Your task to perform on an android device: Show me productivity apps on the Play Store Image 0: 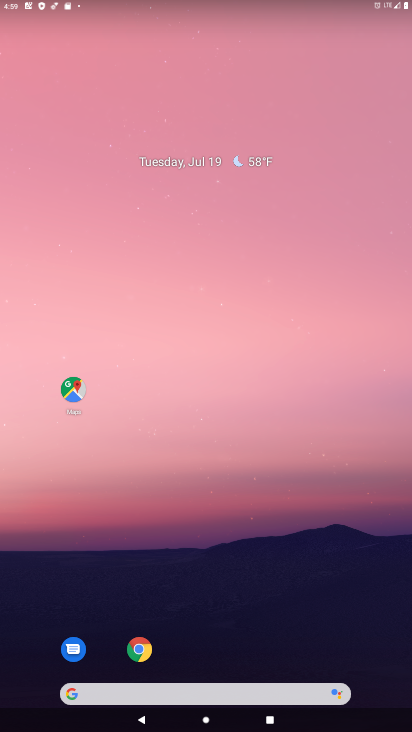
Step 0: press home button
Your task to perform on an android device: Show me productivity apps on the Play Store Image 1: 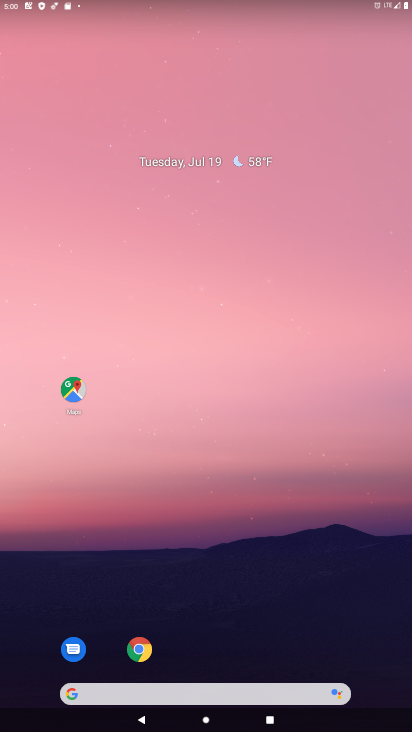
Step 1: drag from (170, 651) to (221, 125)
Your task to perform on an android device: Show me productivity apps on the Play Store Image 2: 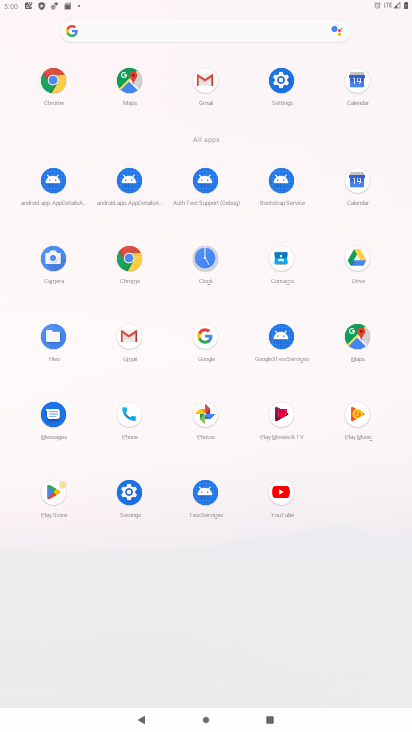
Step 2: click (281, 82)
Your task to perform on an android device: Show me productivity apps on the Play Store Image 3: 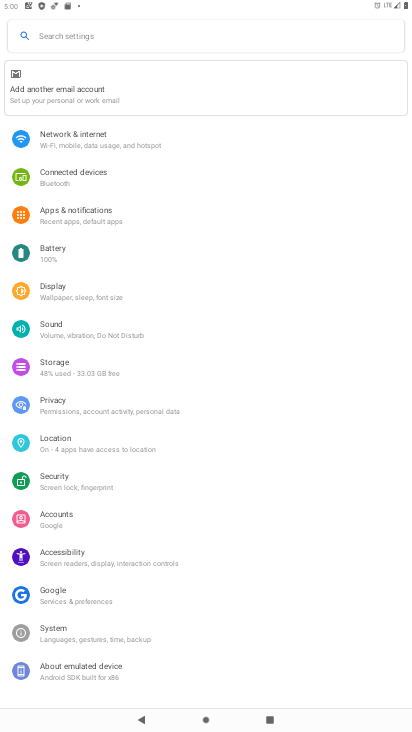
Step 3: press back button
Your task to perform on an android device: Show me productivity apps on the Play Store Image 4: 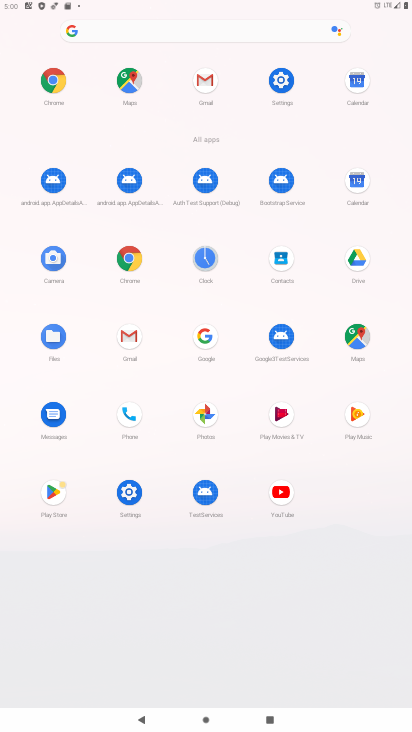
Step 4: click (56, 502)
Your task to perform on an android device: Show me productivity apps on the Play Store Image 5: 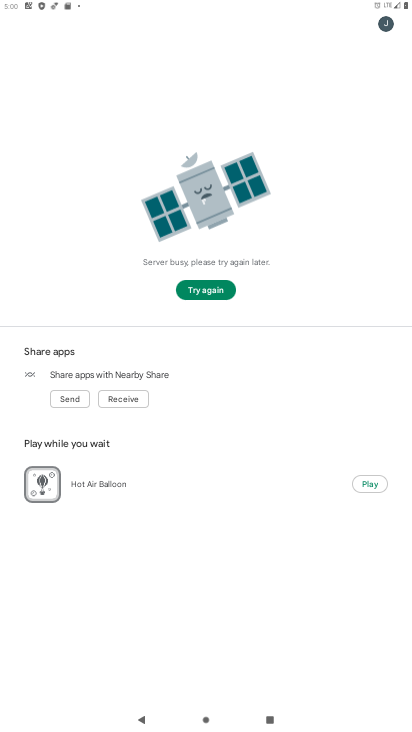
Step 5: task complete